Your task to perform on an android device: Open Google Image 0: 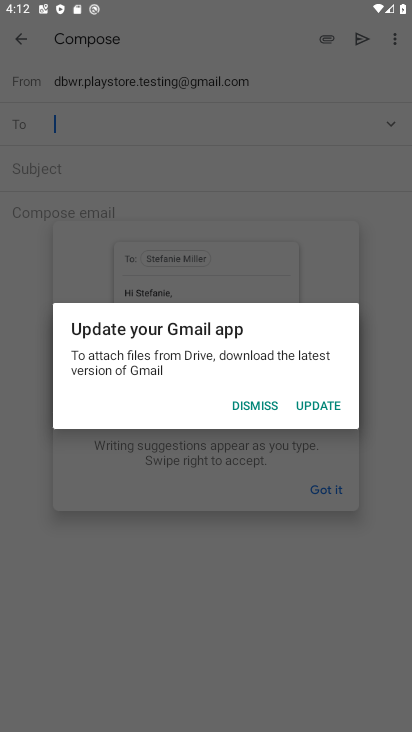
Step 0: click (250, 398)
Your task to perform on an android device: Open Google Image 1: 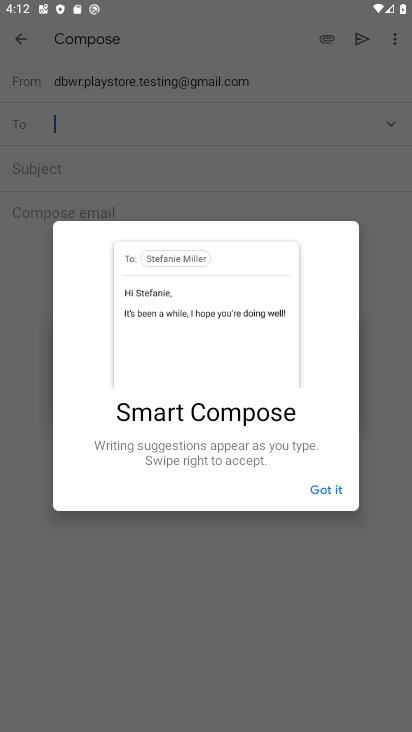
Step 1: click (315, 491)
Your task to perform on an android device: Open Google Image 2: 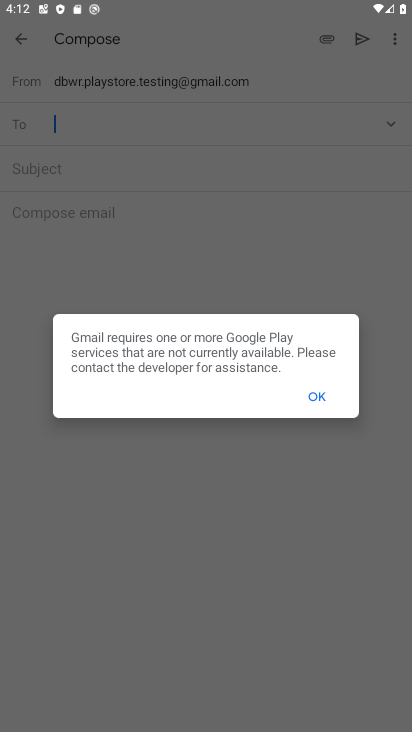
Step 2: click (320, 402)
Your task to perform on an android device: Open Google Image 3: 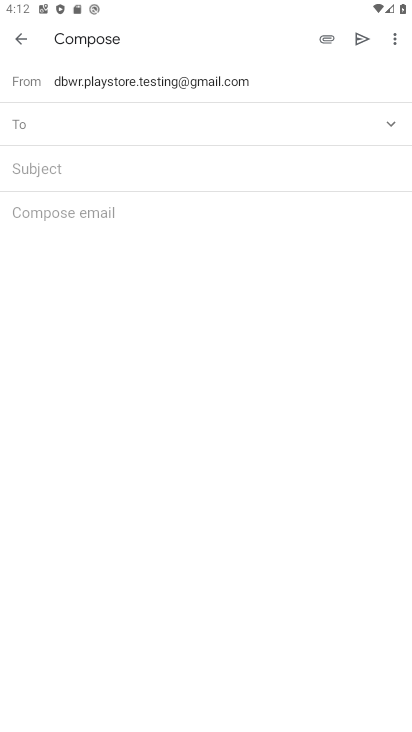
Step 3: click (18, 34)
Your task to perform on an android device: Open Google Image 4: 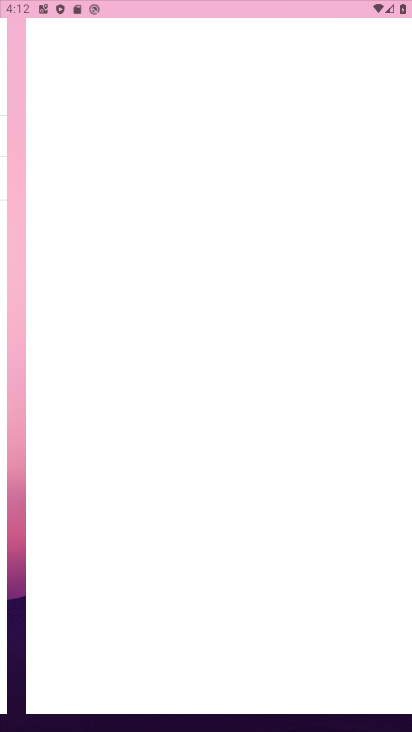
Step 4: press back button
Your task to perform on an android device: Open Google Image 5: 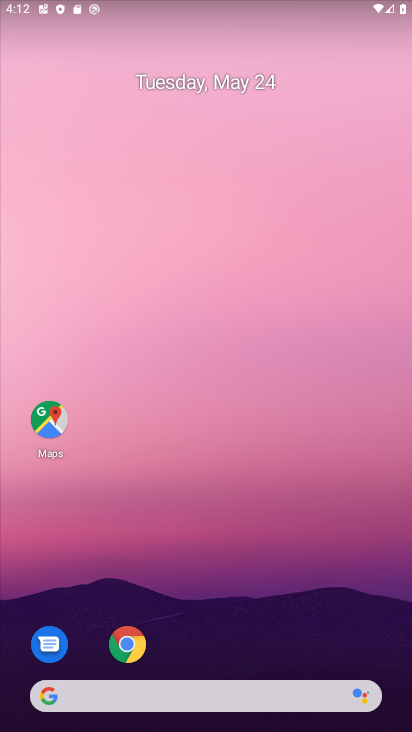
Step 5: press home button
Your task to perform on an android device: Open Google Image 6: 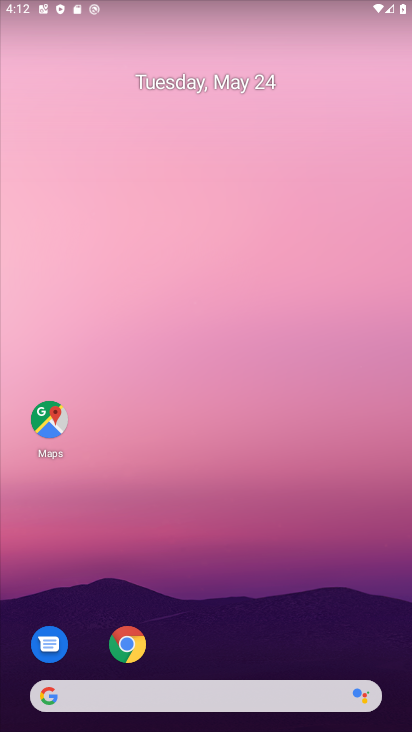
Step 6: drag from (306, 695) to (47, 106)
Your task to perform on an android device: Open Google Image 7: 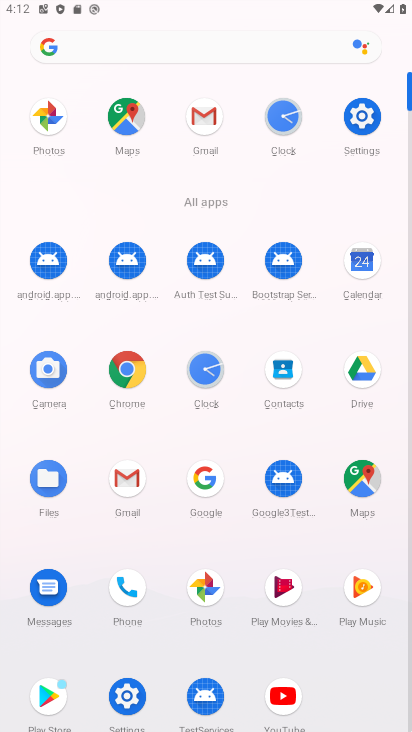
Step 7: click (198, 483)
Your task to perform on an android device: Open Google Image 8: 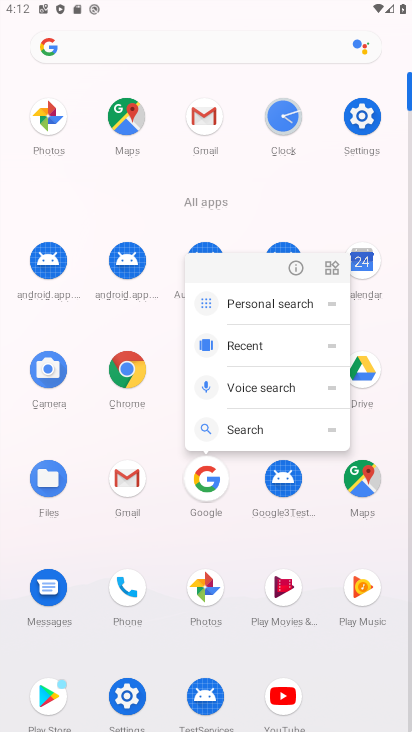
Step 8: click (198, 487)
Your task to perform on an android device: Open Google Image 9: 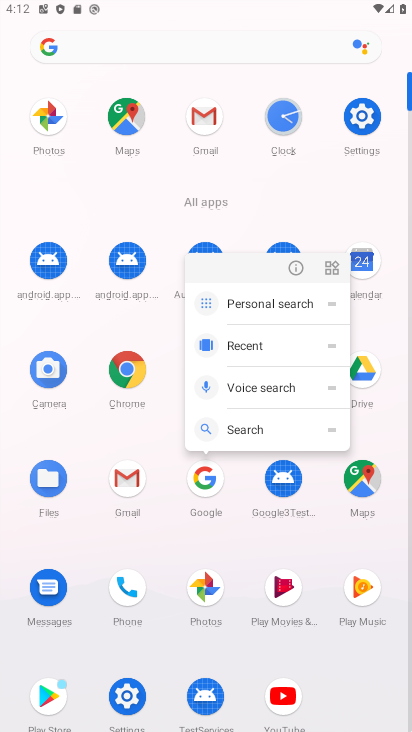
Step 9: click (197, 487)
Your task to perform on an android device: Open Google Image 10: 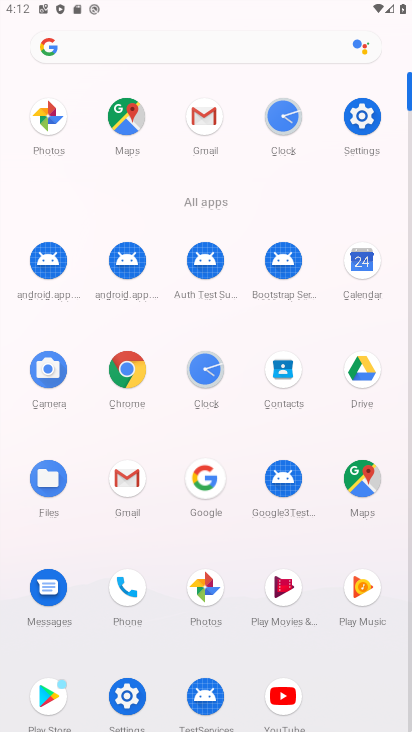
Step 10: click (201, 486)
Your task to perform on an android device: Open Google Image 11: 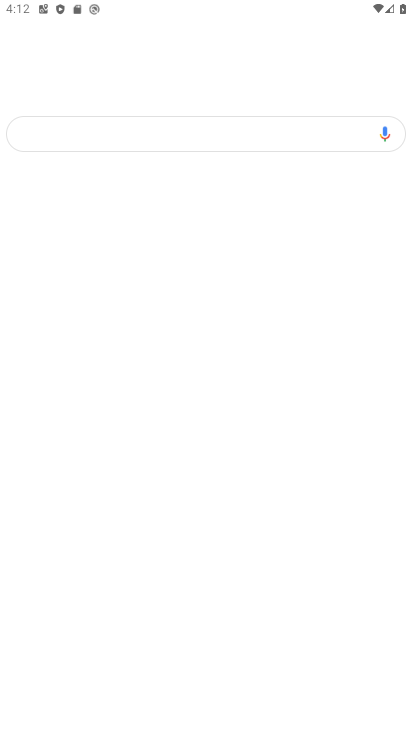
Step 11: click (202, 483)
Your task to perform on an android device: Open Google Image 12: 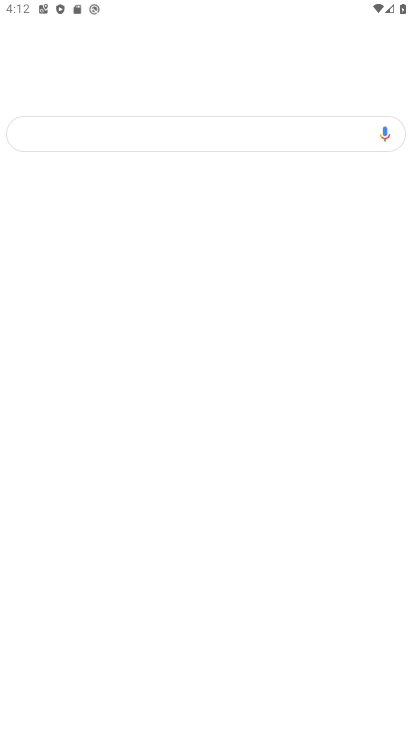
Step 12: click (202, 483)
Your task to perform on an android device: Open Google Image 13: 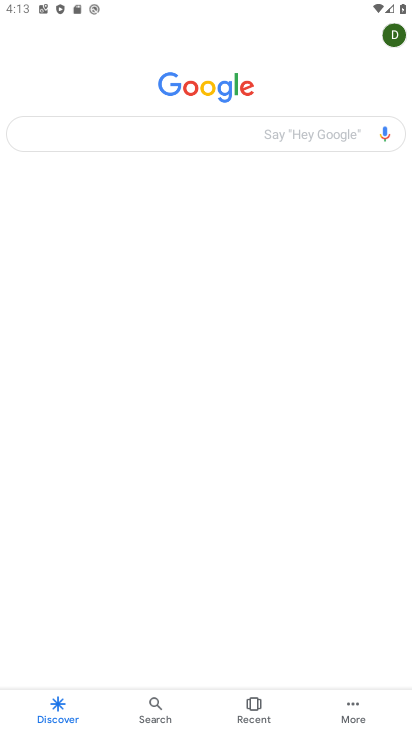
Step 13: click (208, 470)
Your task to perform on an android device: Open Google Image 14: 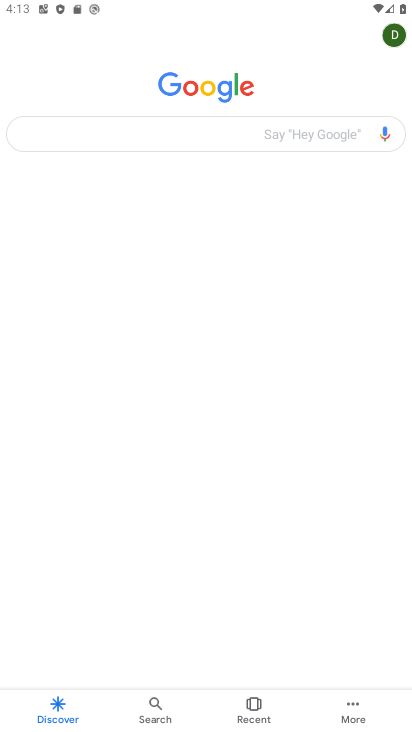
Step 14: click (208, 470)
Your task to perform on an android device: Open Google Image 15: 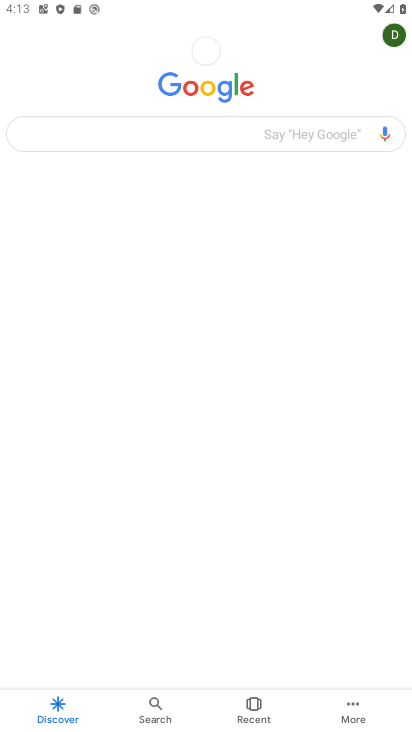
Step 15: click (208, 471)
Your task to perform on an android device: Open Google Image 16: 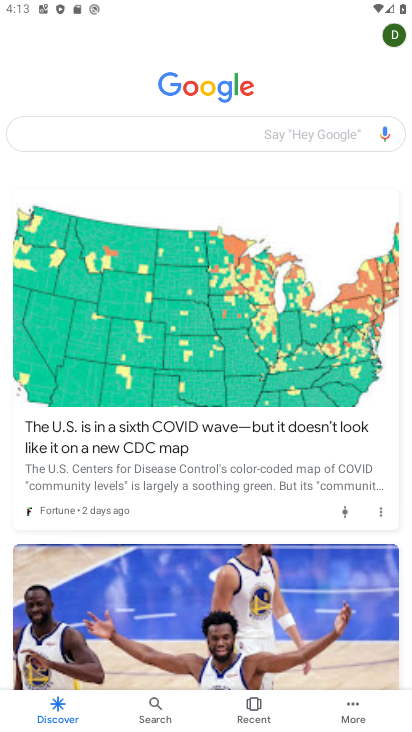
Step 16: task complete